Your task to perform on an android device: Play the latest video from the Wall Street Journal Image 0: 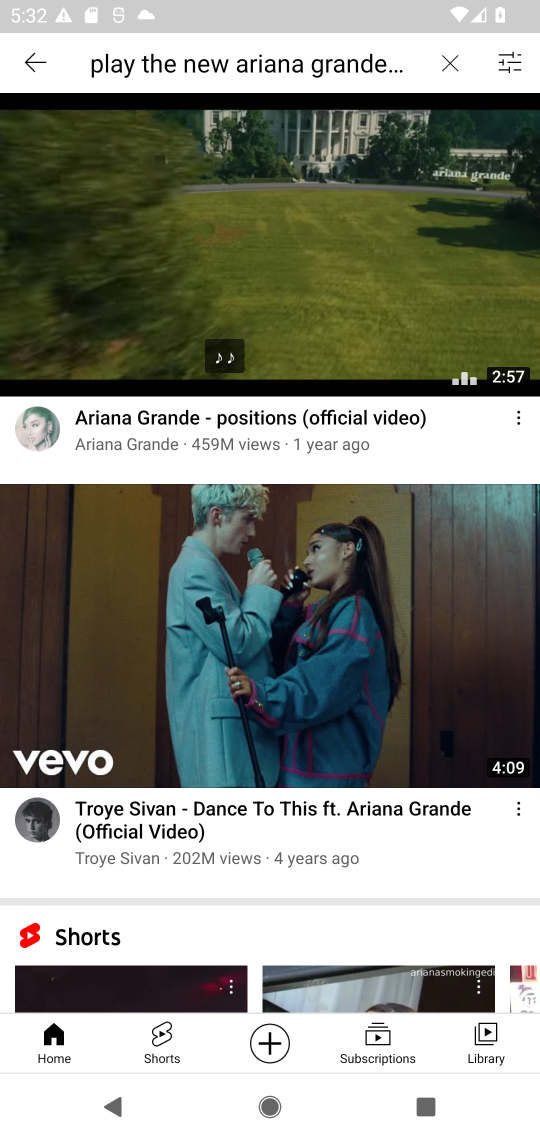
Step 0: press home button
Your task to perform on an android device: Play the latest video from the Wall Street Journal Image 1: 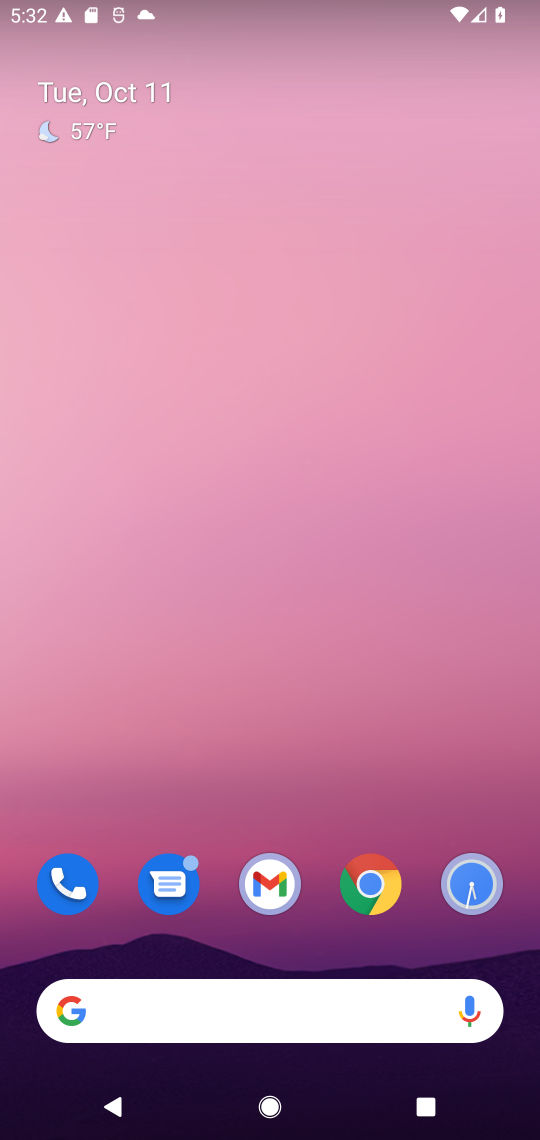
Step 1: click (373, 887)
Your task to perform on an android device: Play the latest video from the Wall Street Journal Image 2: 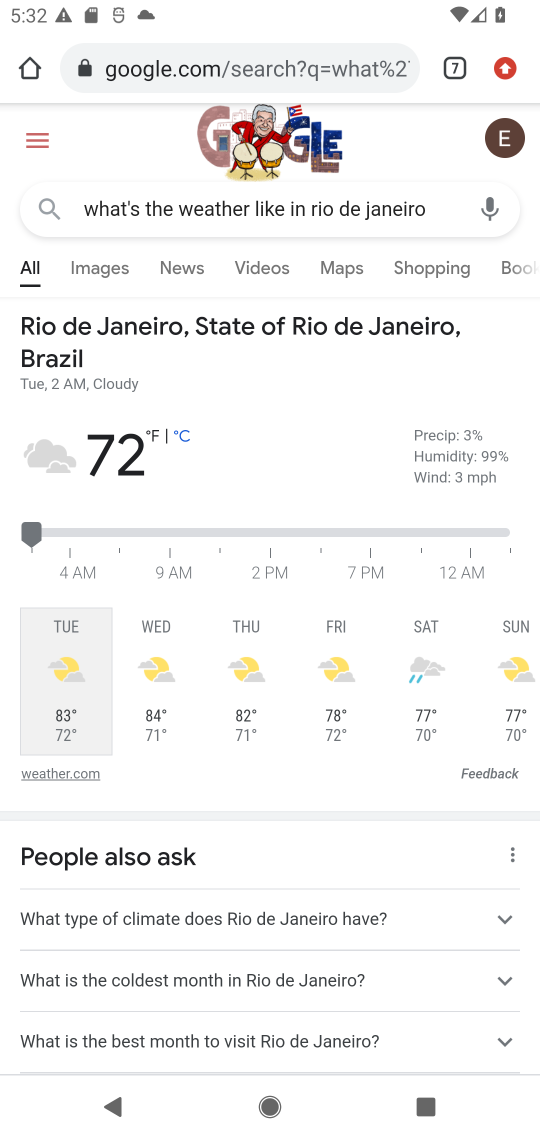
Step 2: click (418, 215)
Your task to perform on an android device: Play the latest video from the Wall Street Journal Image 3: 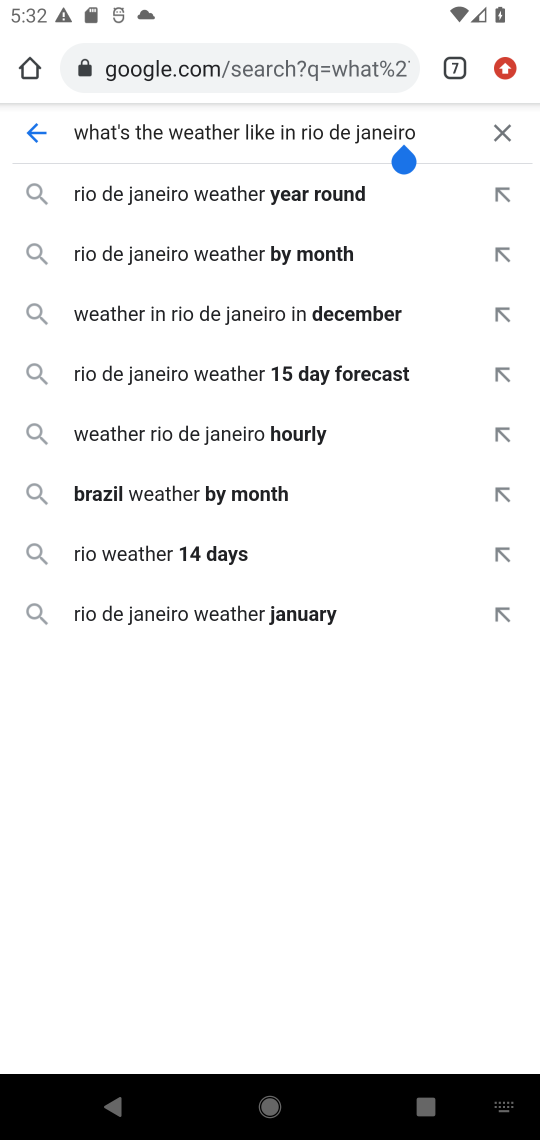
Step 3: click (500, 131)
Your task to perform on an android device: Play the latest video from the Wall Street Journal Image 4: 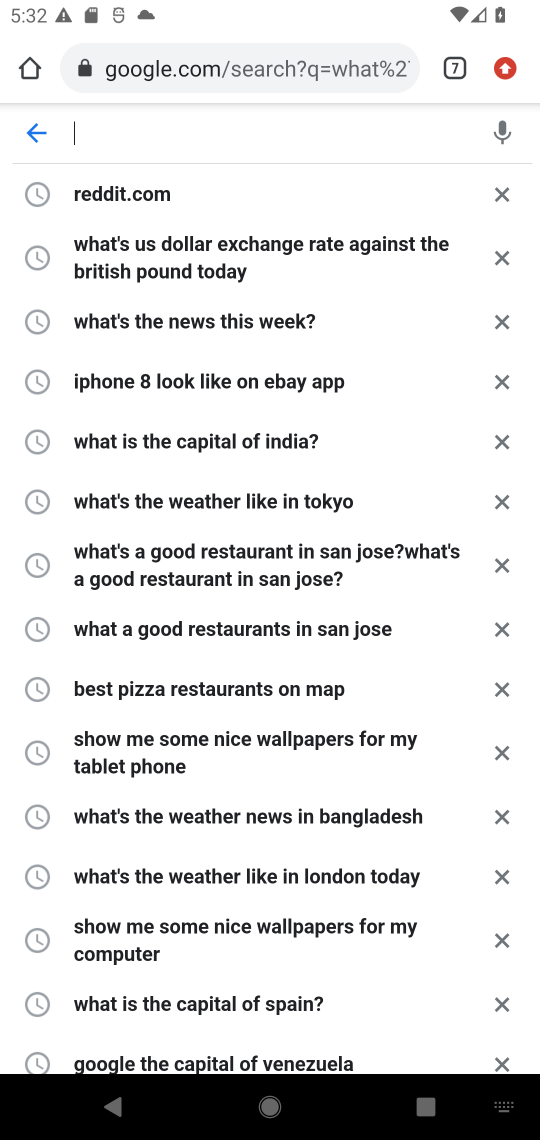
Step 4: type "Play the latest video from the Wall Street Journal"
Your task to perform on an android device: Play the latest video from the Wall Street Journal Image 5: 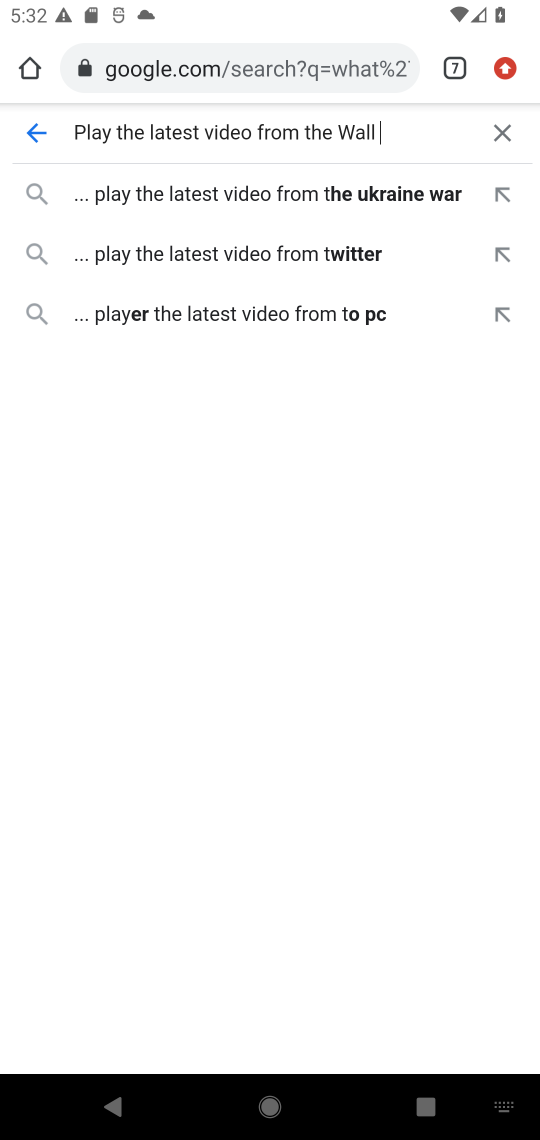
Step 5: type ""
Your task to perform on an android device: Play the latest video from the Wall Street Journal Image 6: 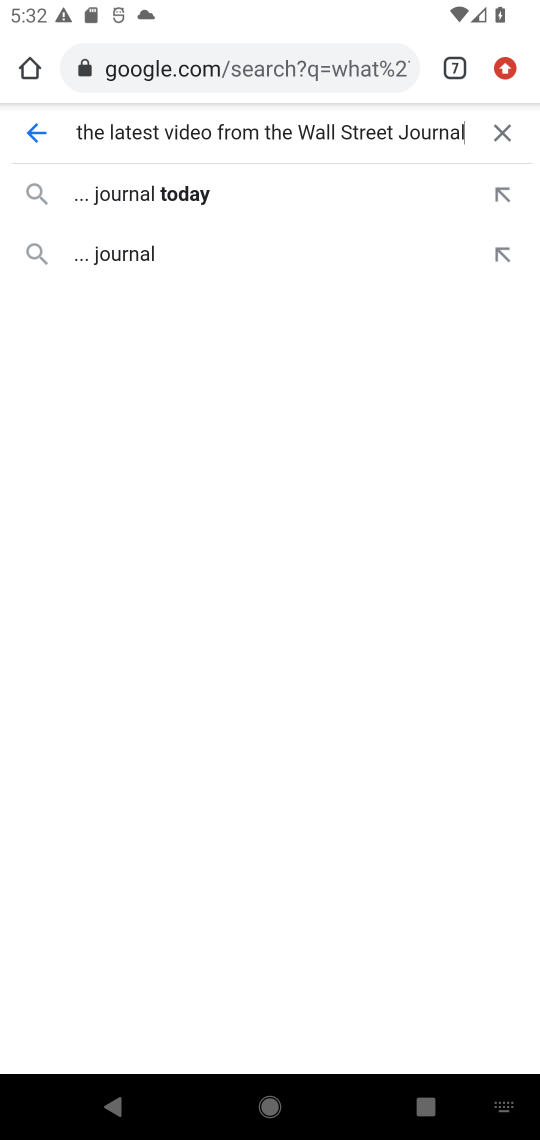
Step 6: click (145, 246)
Your task to perform on an android device: Play the latest video from the Wall Street Journal Image 7: 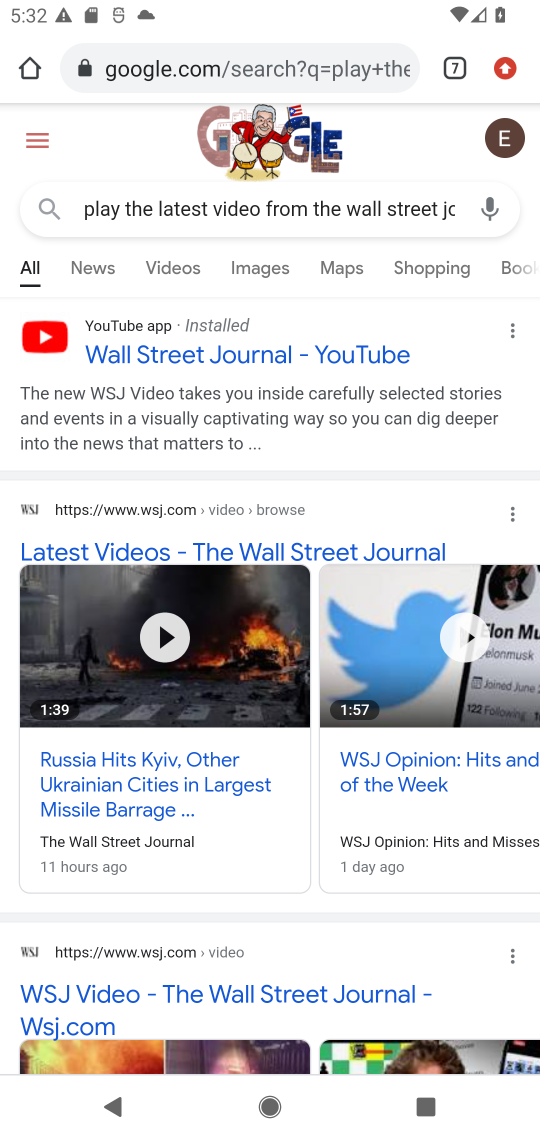
Step 7: click (179, 638)
Your task to perform on an android device: Play the latest video from the Wall Street Journal Image 8: 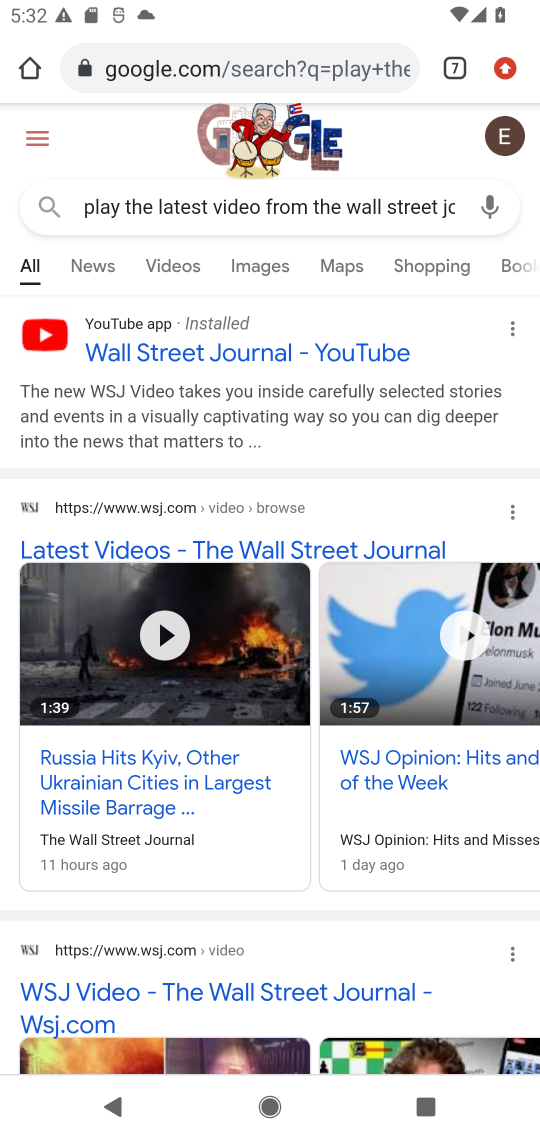
Step 8: click (160, 642)
Your task to perform on an android device: Play the latest video from the Wall Street Journal Image 9: 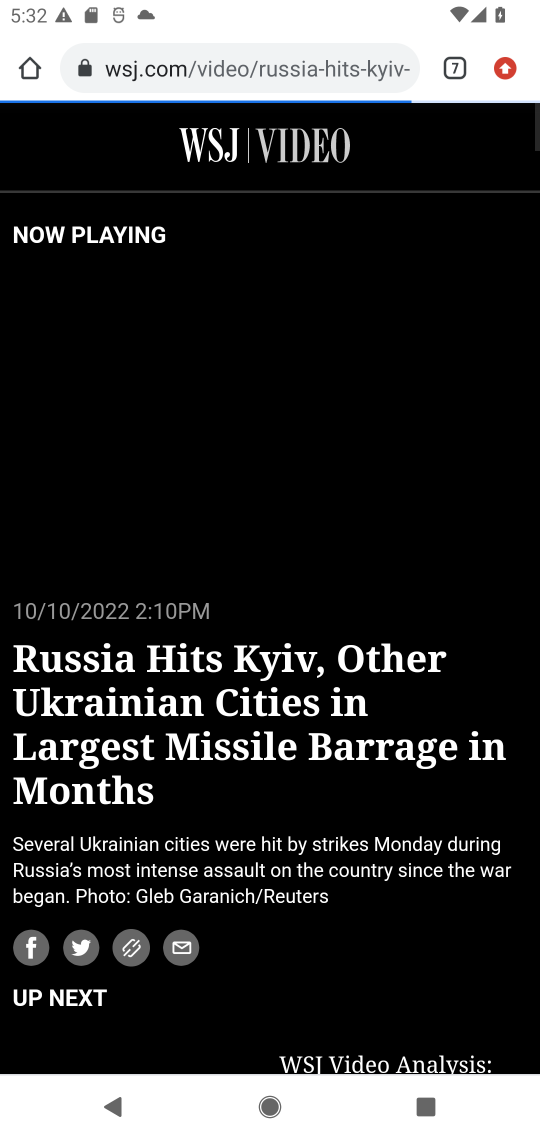
Step 9: click (169, 628)
Your task to perform on an android device: Play the latest video from the Wall Street Journal Image 10: 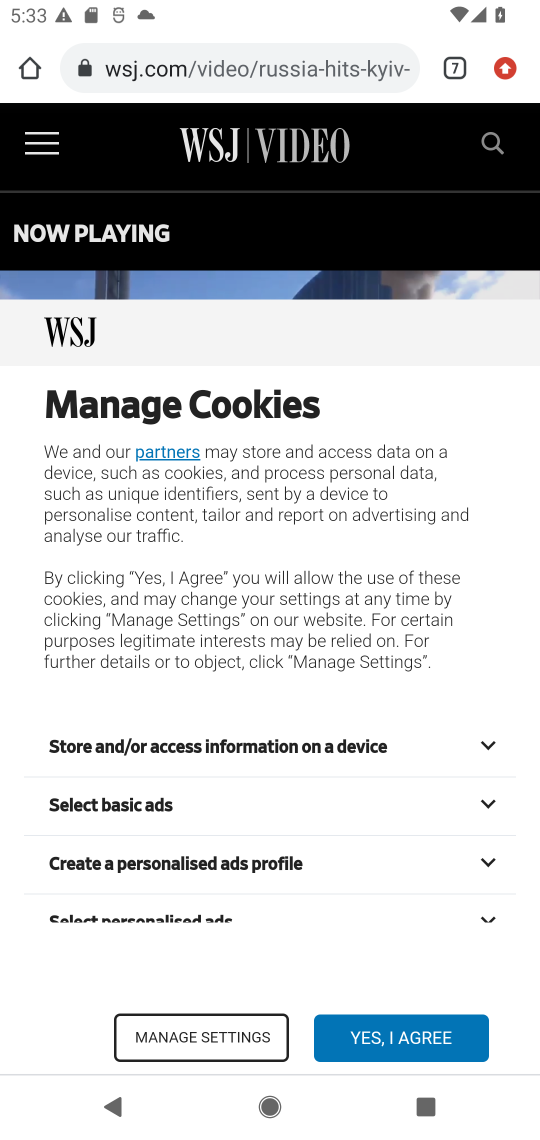
Step 10: click (394, 1039)
Your task to perform on an android device: Play the latest video from the Wall Street Journal Image 11: 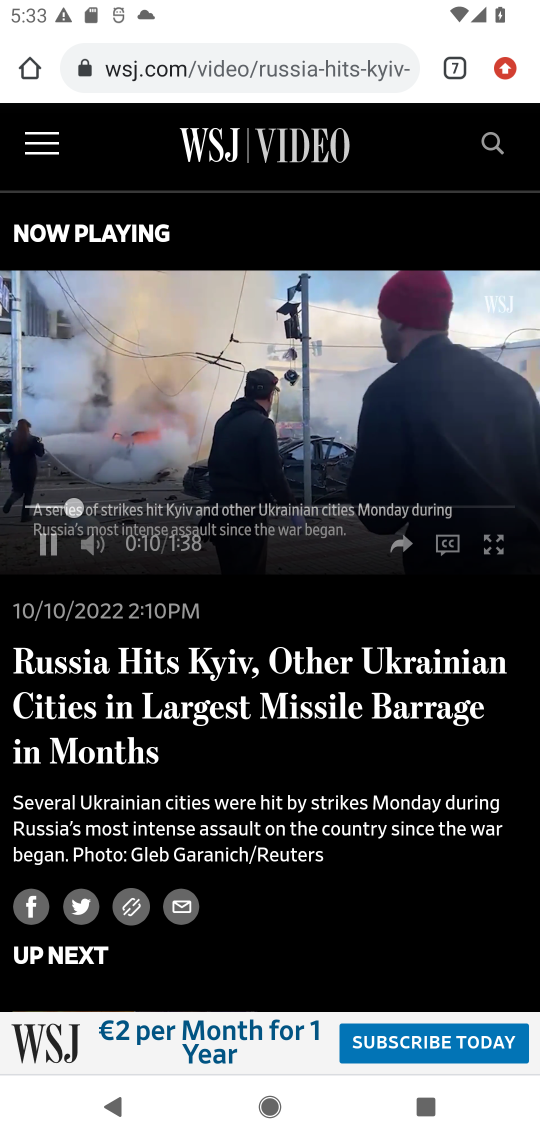
Step 11: task complete